Your task to perform on an android device: Open Maps and search for coffee Image 0: 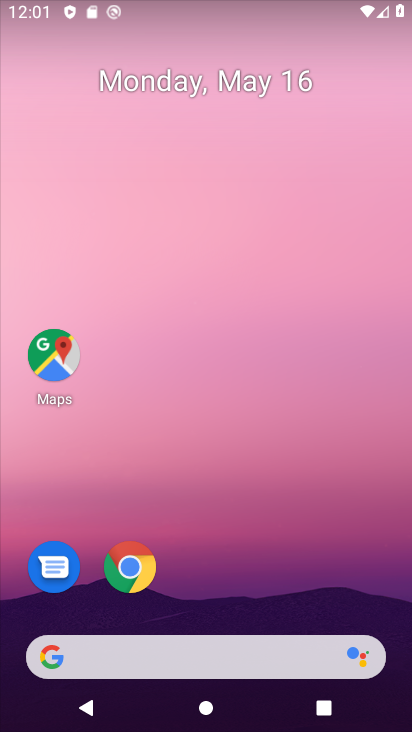
Step 0: click (58, 361)
Your task to perform on an android device: Open Maps and search for coffee Image 1: 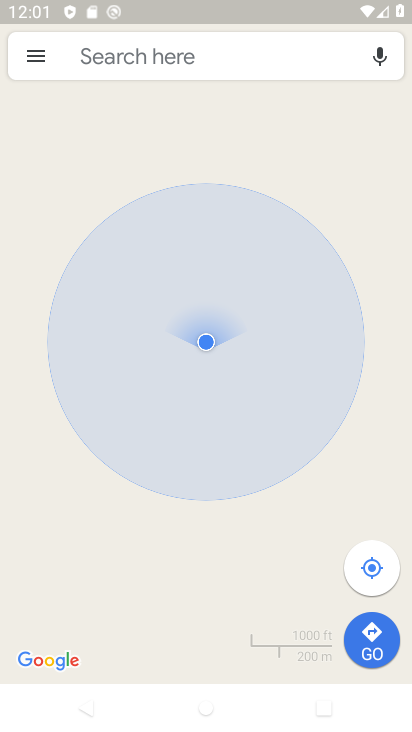
Step 1: click (237, 71)
Your task to perform on an android device: Open Maps and search for coffee Image 2: 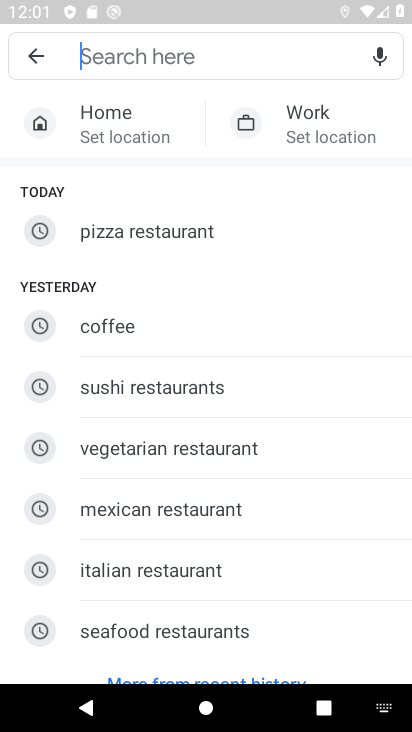
Step 2: click (136, 332)
Your task to perform on an android device: Open Maps and search for coffee Image 3: 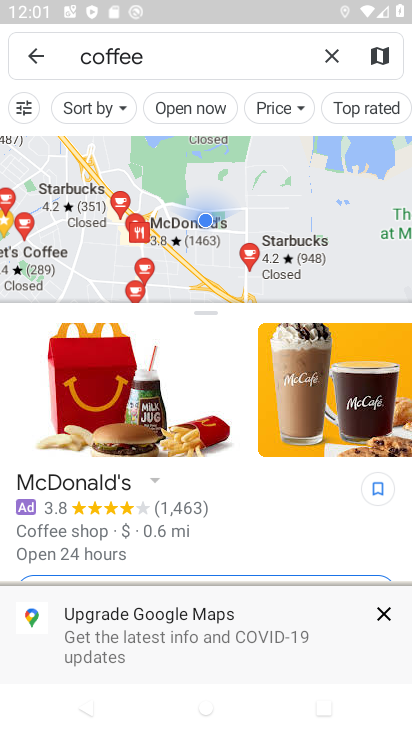
Step 3: task complete